Your task to perform on an android device: Go to Yahoo.com Image 0: 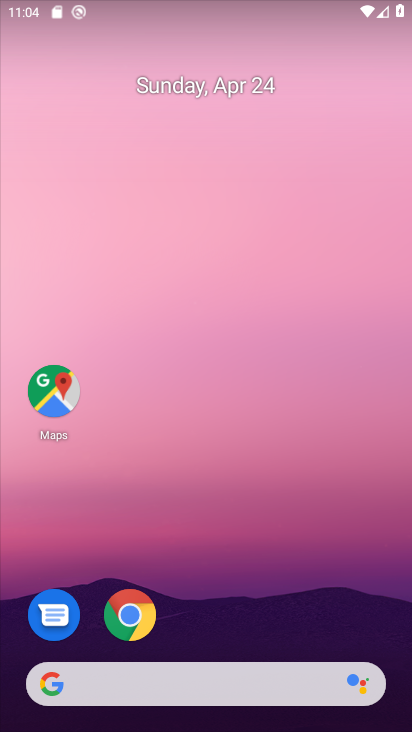
Step 0: drag from (219, 634) to (210, 0)
Your task to perform on an android device: Go to Yahoo.com Image 1: 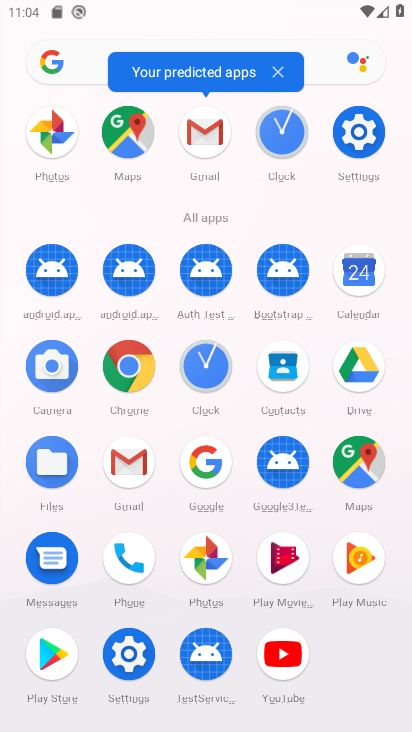
Step 1: click (280, 648)
Your task to perform on an android device: Go to Yahoo.com Image 2: 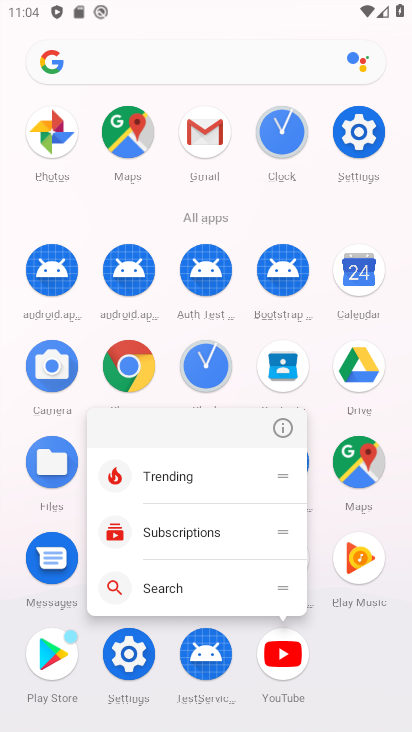
Step 2: click (282, 646)
Your task to perform on an android device: Go to Yahoo.com Image 3: 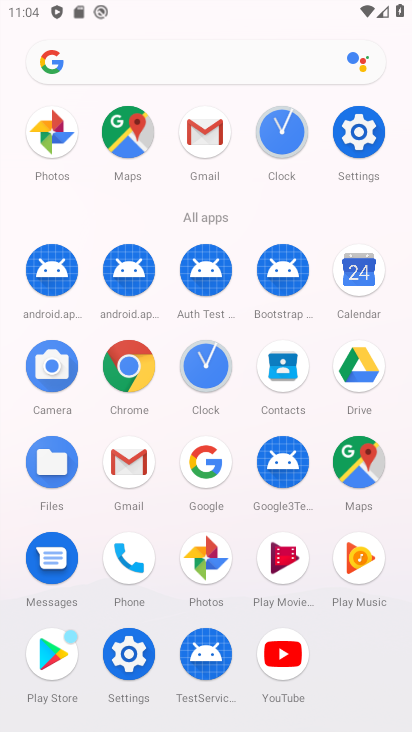
Step 3: click (126, 358)
Your task to perform on an android device: Go to Yahoo.com Image 4: 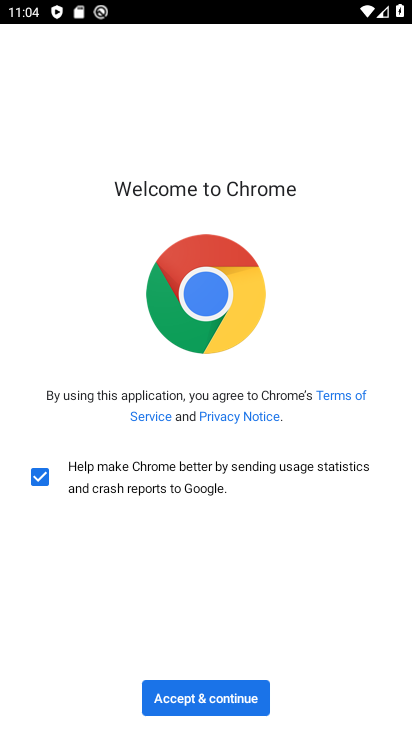
Step 4: click (198, 693)
Your task to perform on an android device: Go to Yahoo.com Image 5: 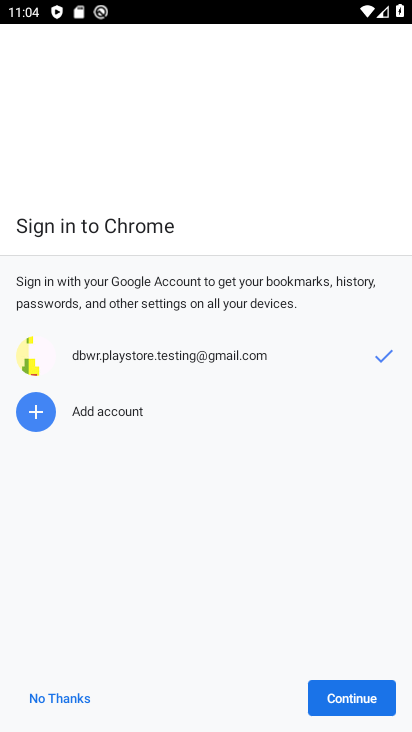
Step 5: click (350, 697)
Your task to perform on an android device: Go to Yahoo.com Image 6: 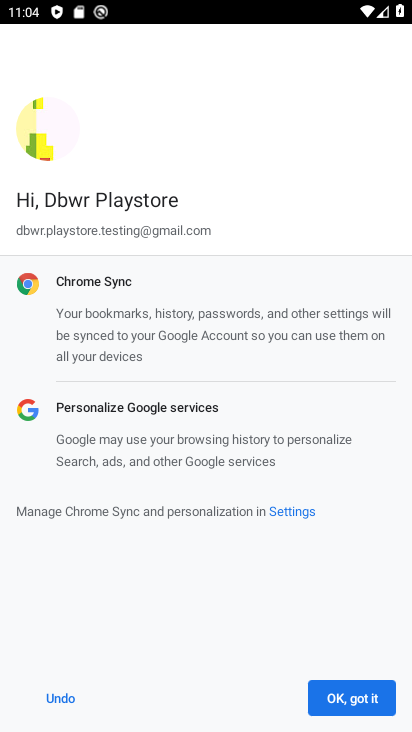
Step 6: click (355, 700)
Your task to perform on an android device: Go to Yahoo.com Image 7: 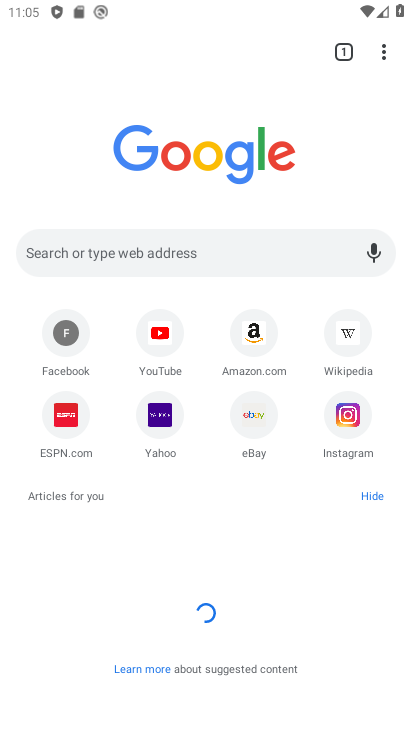
Step 7: click (155, 413)
Your task to perform on an android device: Go to Yahoo.com Image 8: 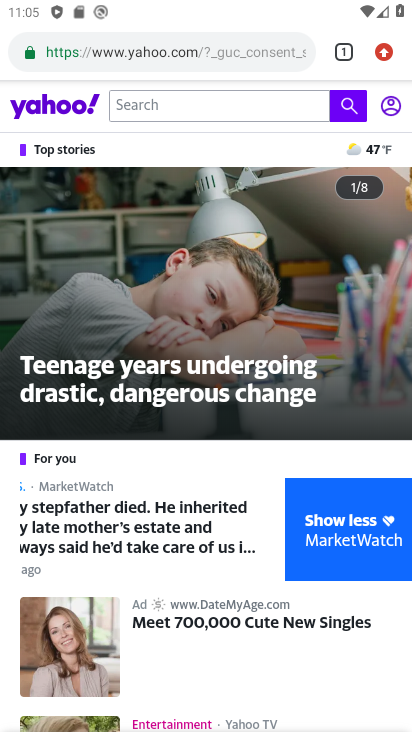
Step 8: task complete